Your task to perform on an android device: Go to privacy settings Image 0: 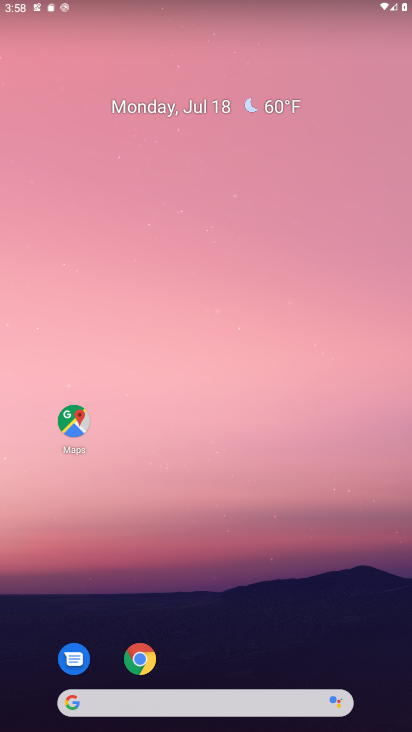
Step 0: drag from (186, 624) to (254, 2)
Your task to perform on an android device: Go to privacy settings Image 1: 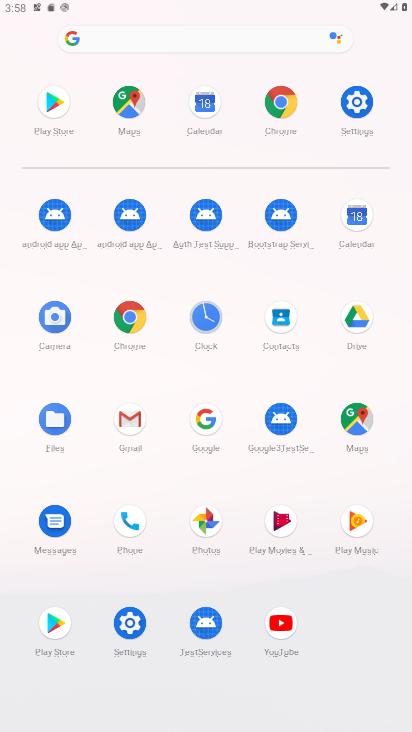
Step 1: click (368, 103)
Your task to perform on an android device: Go to privacy settings Image 2: 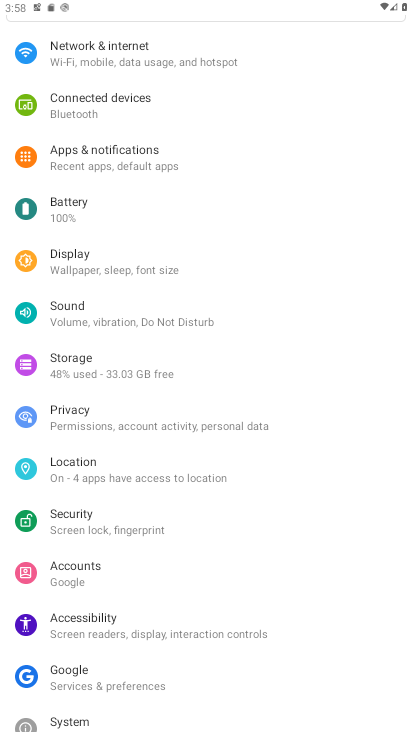
Step 2: click (117, 425)
Your task to perform on an android device: Go to privacy settings Image 3: 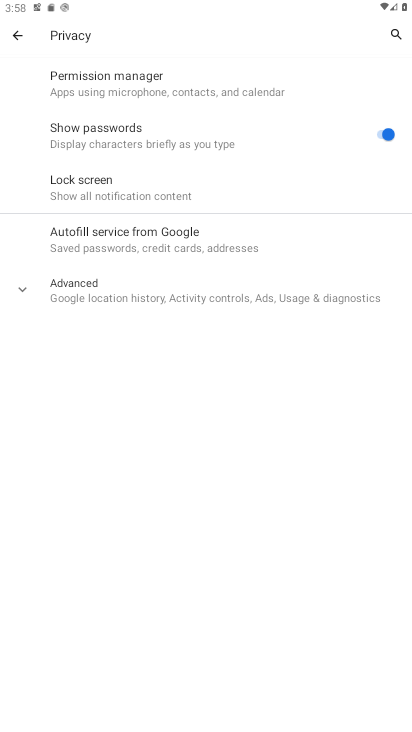
Step 3: task complete